Your task to perform on an android device: Search for Italian restaurants on Maps Image 0: 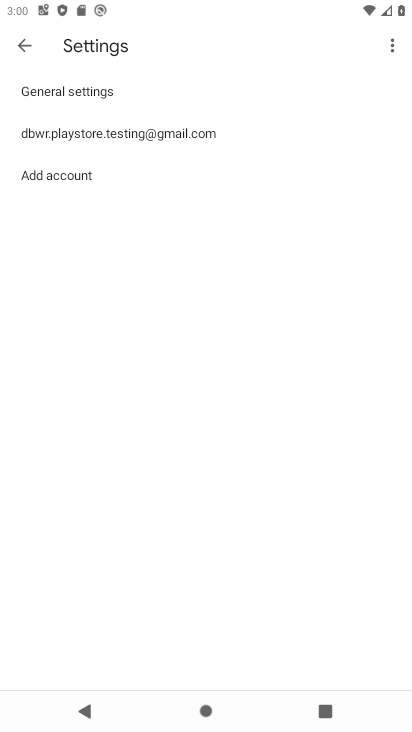
Step 0: press home button
Your task to perform on an android device: Search for Italian restaurants on Maps Image 1: 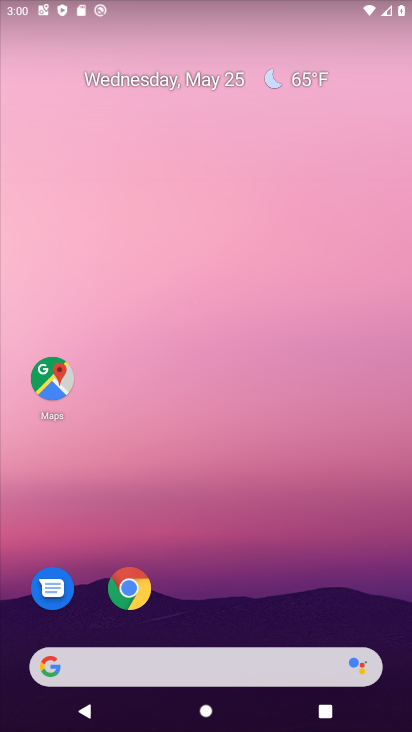
Step 1: click (53, 389)
Your task to perform on an android device: Search for Italian restaurants on Maps Image 2: 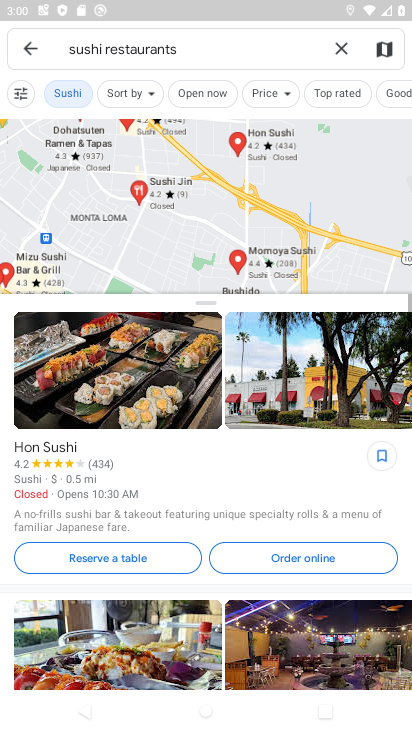
Step 2: click (348, 43)
Your task to perform on an android device: Search for Italian restaurants on Maps Image 3: 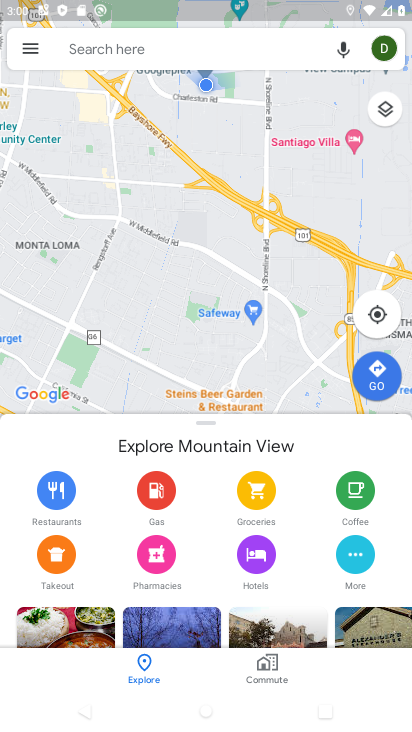
Step 3: click (156, 46)
Your task to perform on an android device: Search for Italian restaurants on Maps Image 4: 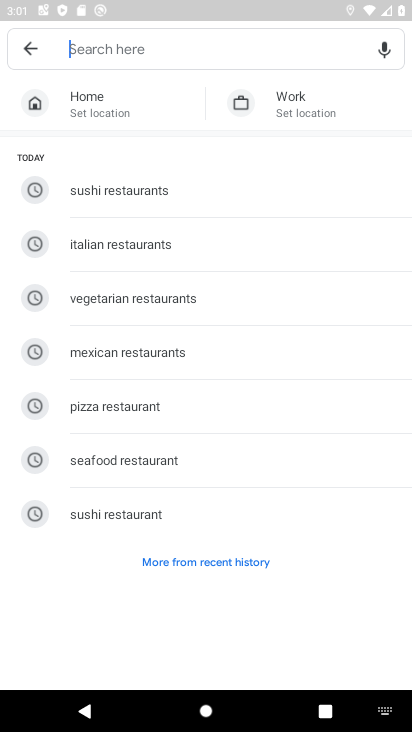
Step 4: type "Italian restaurants"
Your task to perform on an android device: Search for Italian restaurants on Maps Image 5: 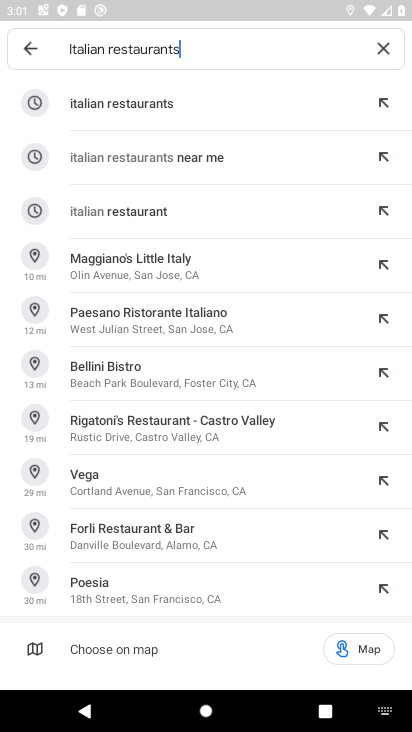
Step 5: click (147, 111)
Your task to perform on an android device: Search for Italian restaurants on Maps Image 6: 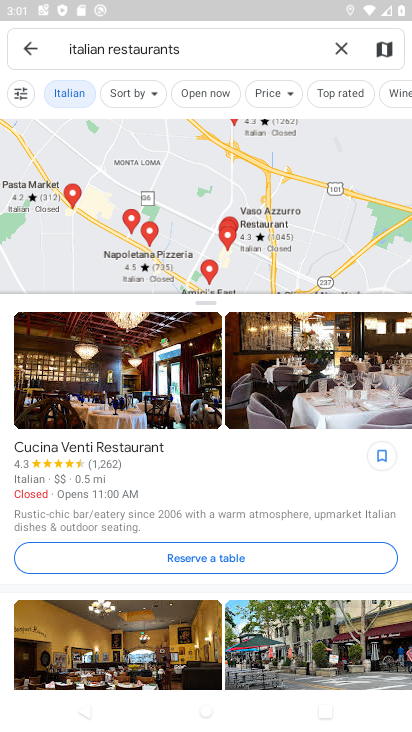
Step 6: task complete